Your task to perform on an android device: Go to Maps Image 0: 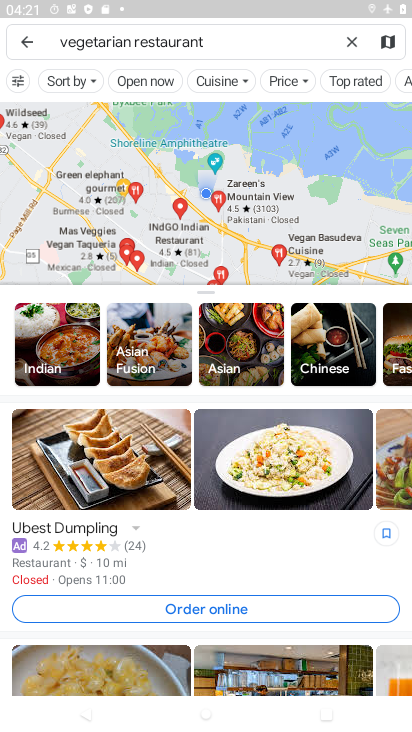
Step 0: task complete